Your task to perform on an android device: Open sound settings Image 0: 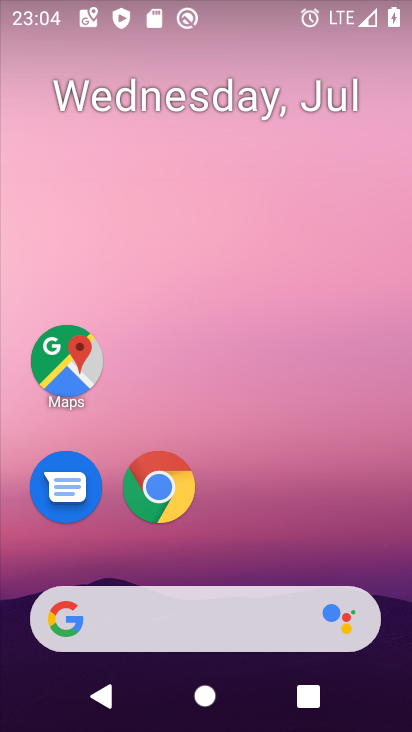
Step 0: drag from (268, 484) to (306, 25)
Your task to perform on an android device: Open sound settings Image 1: 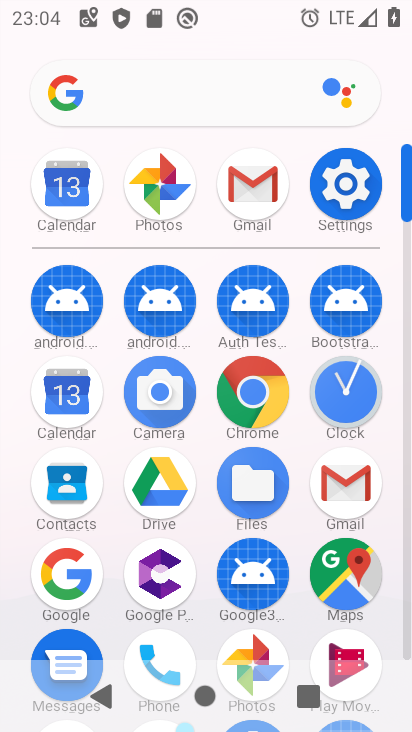
Step 1: click (355, 186)
Your task to perform on an android device: Open sound settings Image 2: 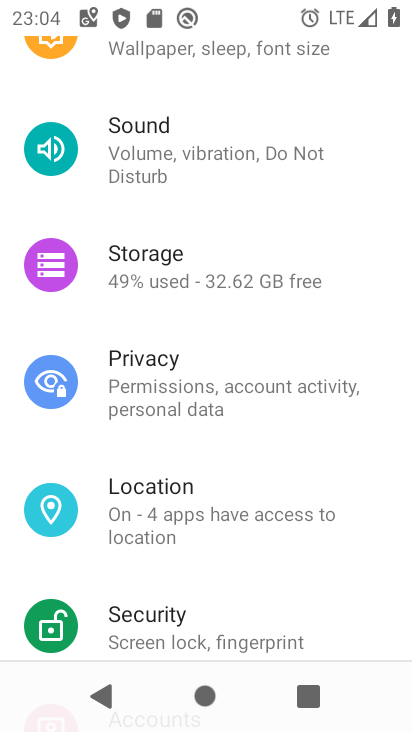
Step 2: click (163, 142)
Your task to perform on an android device: Open sound settings Image 3: 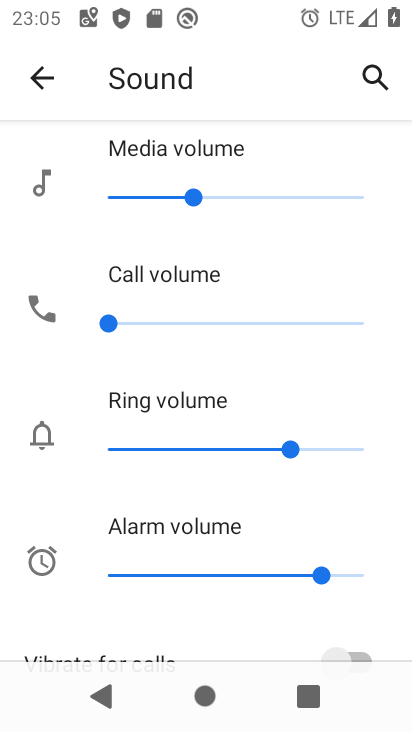
Step 3: task complete